Your task to perform on an android device: Show me popular games on the Play Store Image 0: 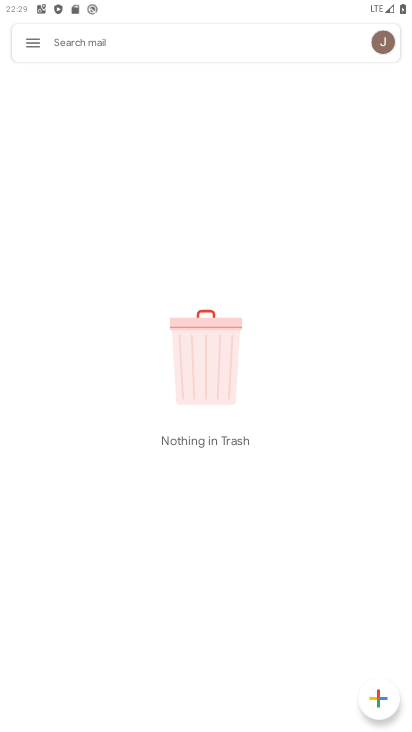
Step 0: press home button
Your task to perform on an android device: Show me popular games on the Play Store Image 1: 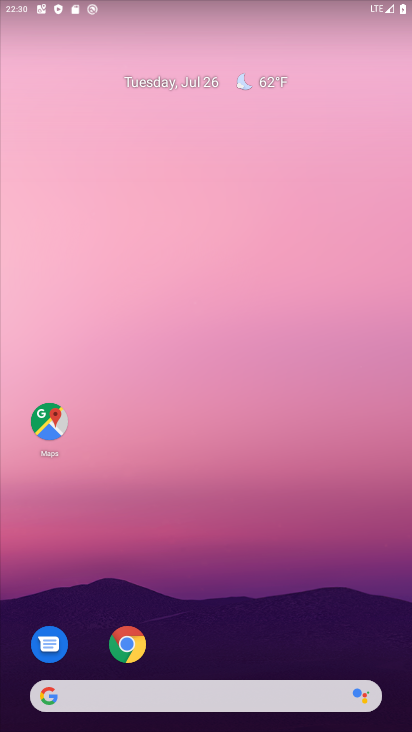
Step 1: drag from (267, 658) to (284, 108)
Your task to perform on an android device: Show me popular games on the Play Store Image 2: 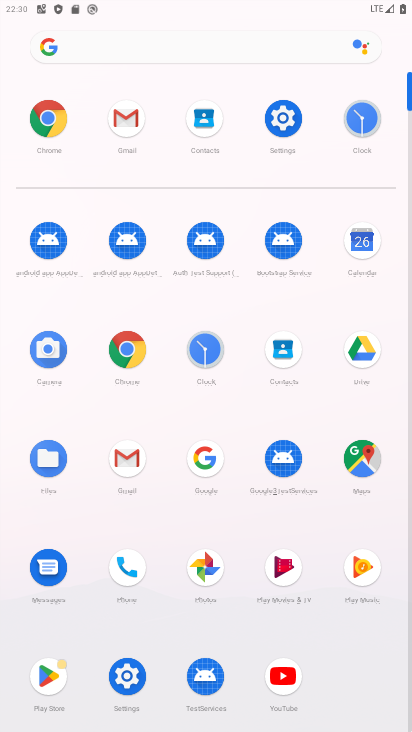
Step 2: click (46, 678)
Your task to perform on an android device: Show me popular games on the Play Store Image 3: 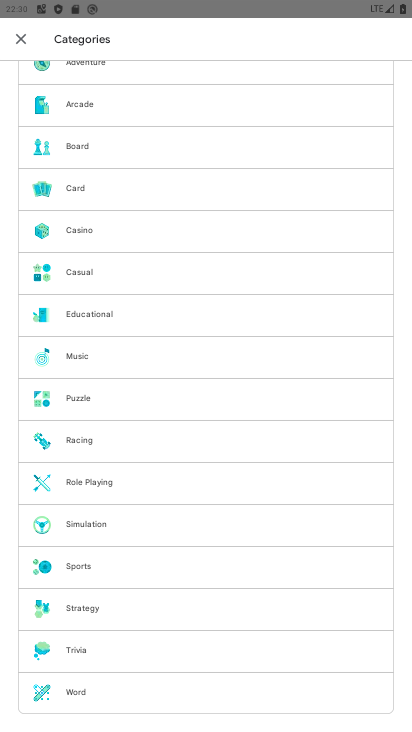
Step 3: click (26, 40)
Your task to perform on an android device: Show me popular games on the Play Store Image 4: 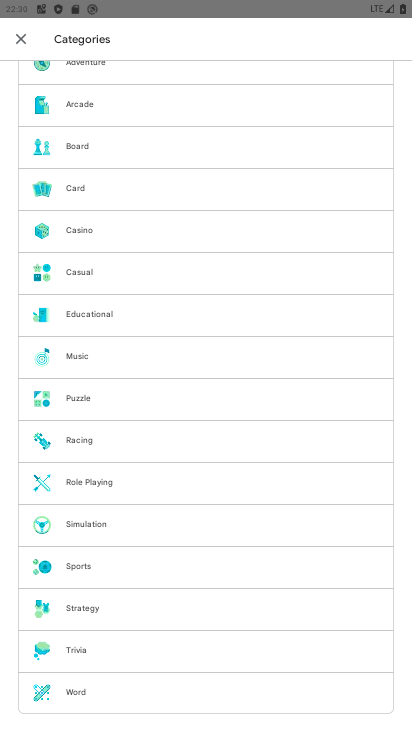
Step 4: click (23, 41)
Your task to perform on an android device: Show me popular games on the Play Store Image 5: 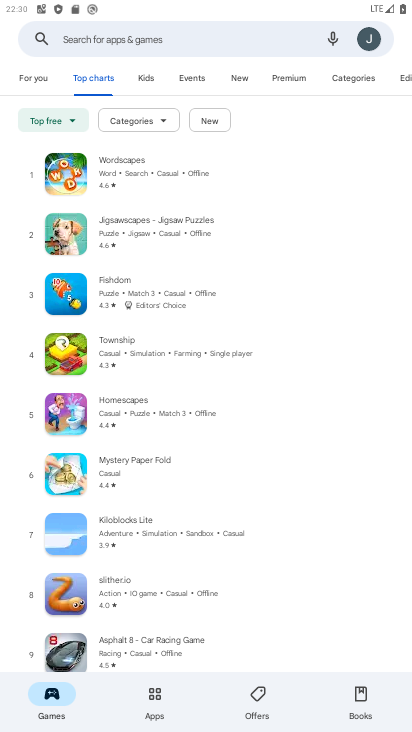
Step 5: press back button
Your task to perform on an android device: Show me popular games on the Play Store Image 6: 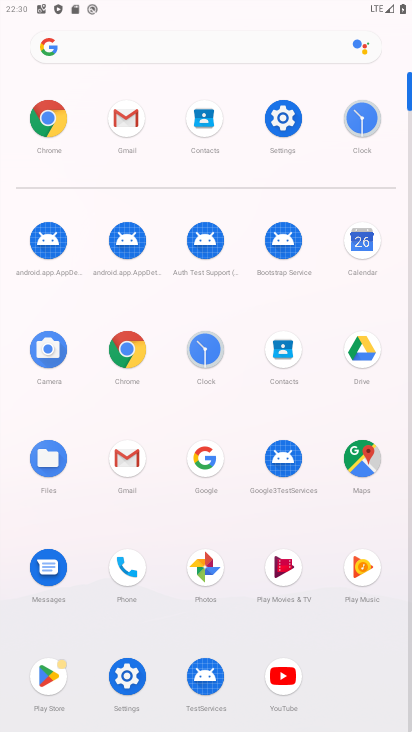
Step 6: click (58, 686)
Your task to perform on an android device: Show me popular games on the Play Store Image 7: 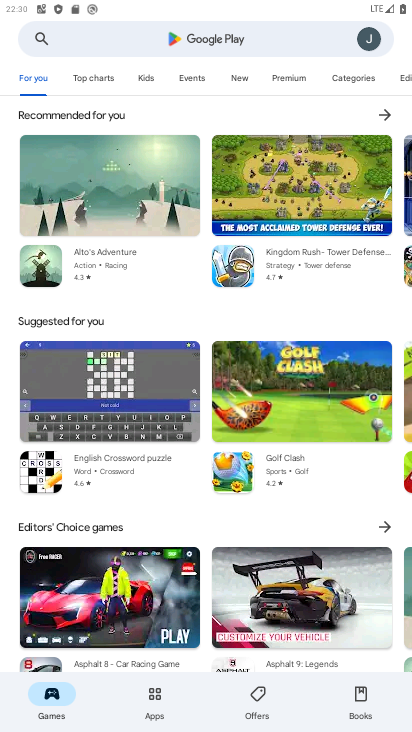
Step 7: click (62, 688)
Your task to perform on an android device: Show me popular games on the Play Store Image 8: 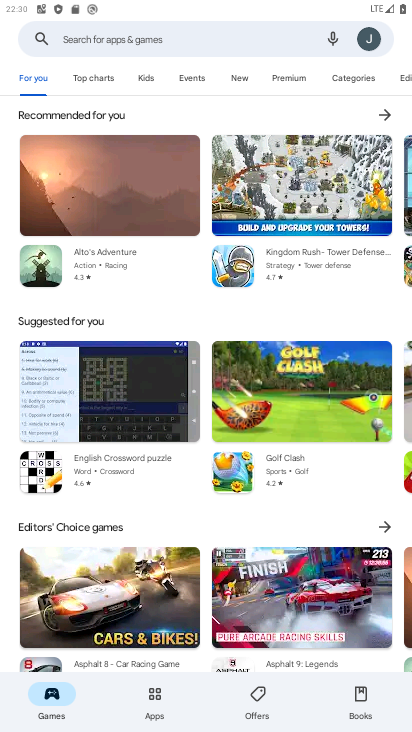
Step 8: drag from (240, 262) to (215, 550)
Your task to perform on an android device: Show me popular games on the Play Store Image 9: 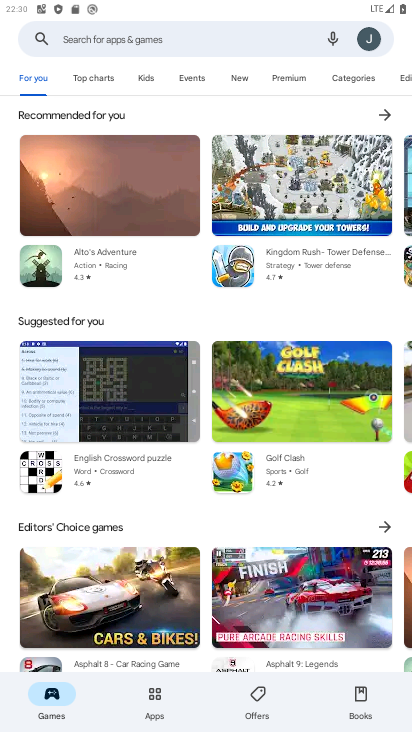
Step 9: drag from (215, 549) to (240, 310)
Your task to perform on an android device: Show me popular games on the Play Store Image 10: 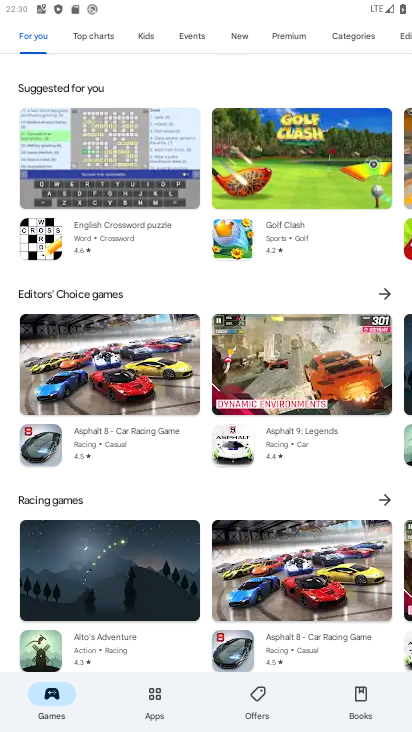
Step 10: drag from (191, 535) to (198, 286)
Your task to perform on an android device: Show me popular games on the Play Store Image 11: 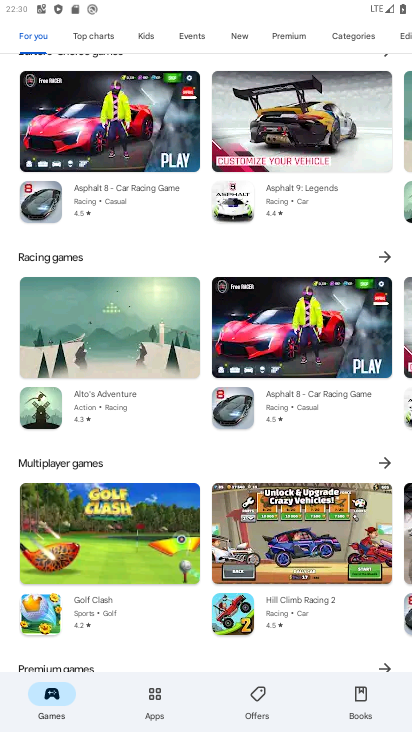
Step 11: drag from (172, 549) to (185, 263)
Your task to perform on an android device: Show me popular games on the Play Store Image 12: 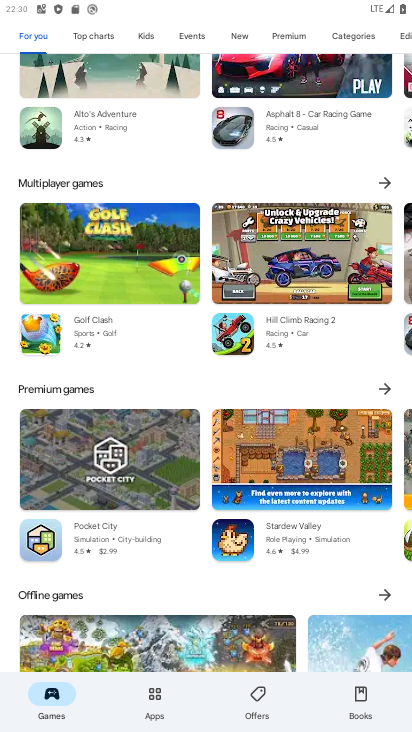
Step 12: drag from (169, 569) to (188, 277)
Your task to perform on an android device: Show me popular games on the Play Store Image 13: 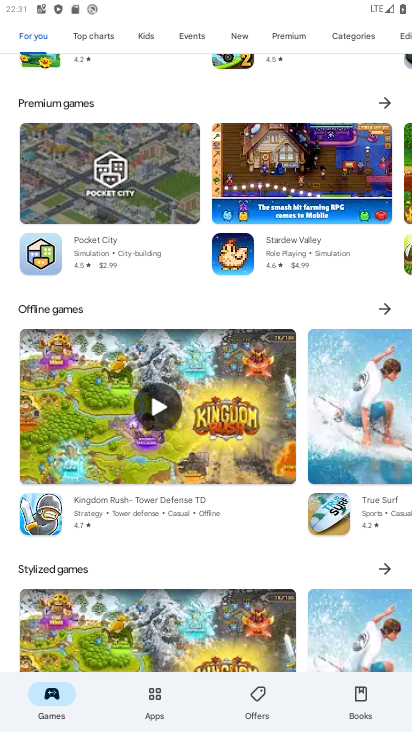
Step 13: drag from (171, 598) to (181, 240)
Your task to perform on an android device: Show me popular games on the Play Store Image 14: 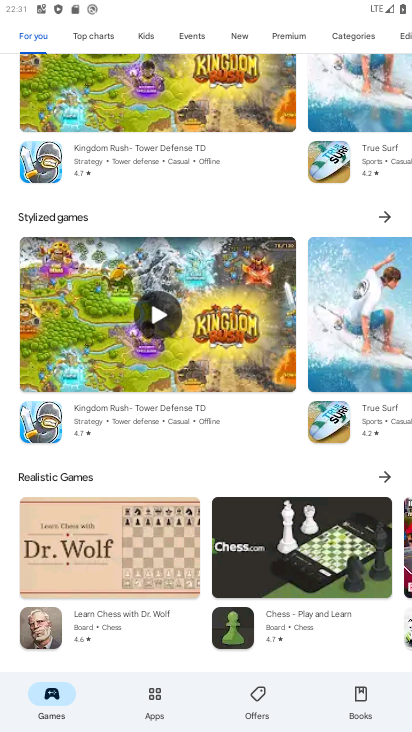
Step 14: drag from (206, 547) to (199, 277)
Your task to perform on an android device: Show me popular games on the Play Store Image 15: 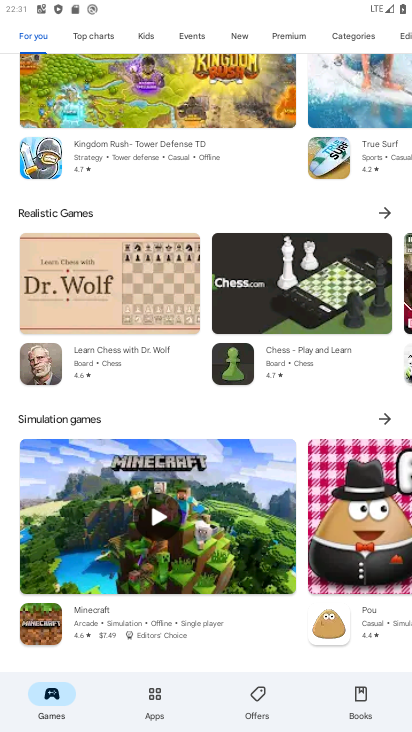
Step 15: drag from (142, 587) to (147, 259)
Your task to perform on an android device: Show me popular games on the Play Store Image 16: 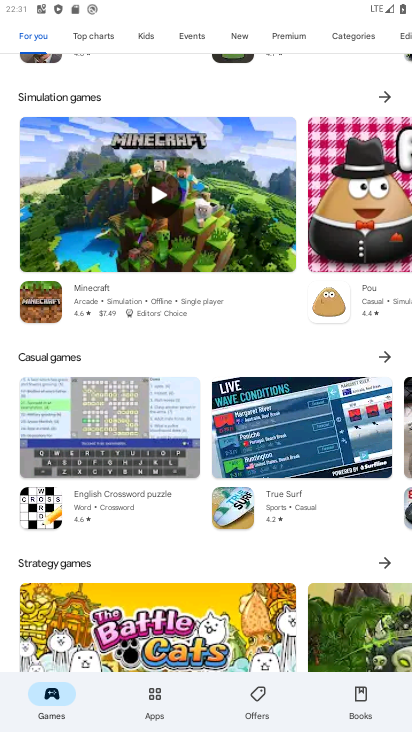
Step 16: drag from (167, 617) to (159, 340)
Your task to perform on an android device: Show me popular games on the Play Store Image 17: 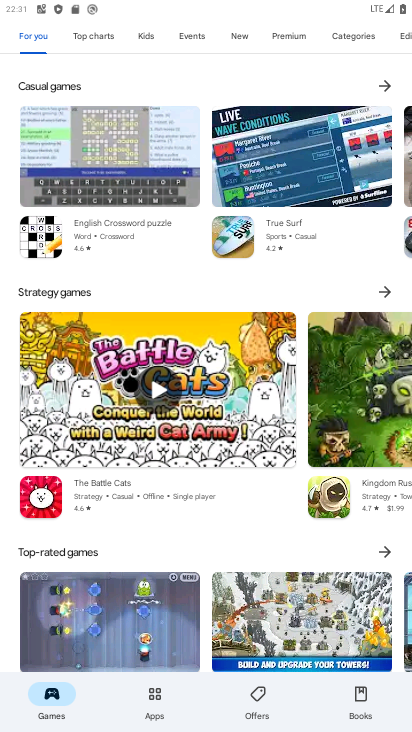
Step 17: drag from (179, 629) to (179, 286)
Your task to perform on an android device: Show me popular games on the Play Store Image 18: 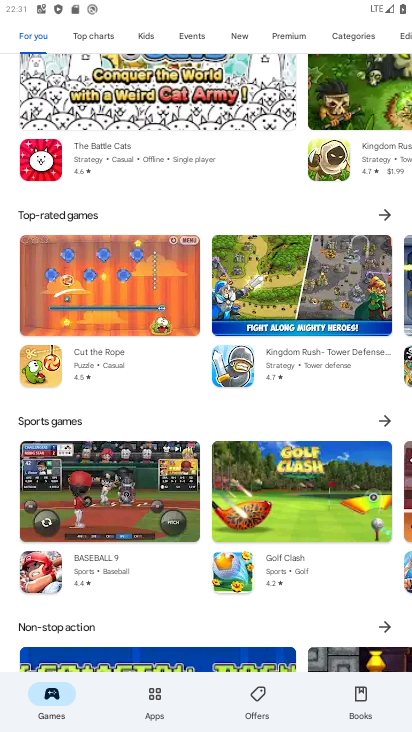
Step 18: drag from (212, 619) to (171, 269)
Your task to perform on an android device: Show me popular games on the Play Store Image 19: 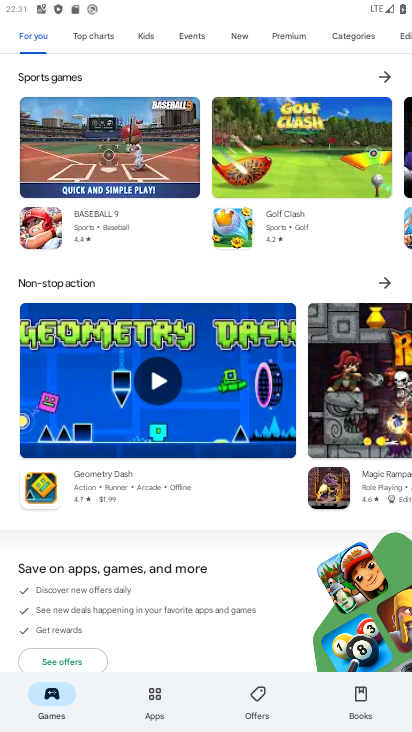
Step 19: drag from (188, 534) to (185, 253)
Your task to perform on an android device: Show me popular games on the Play Store Image 20: 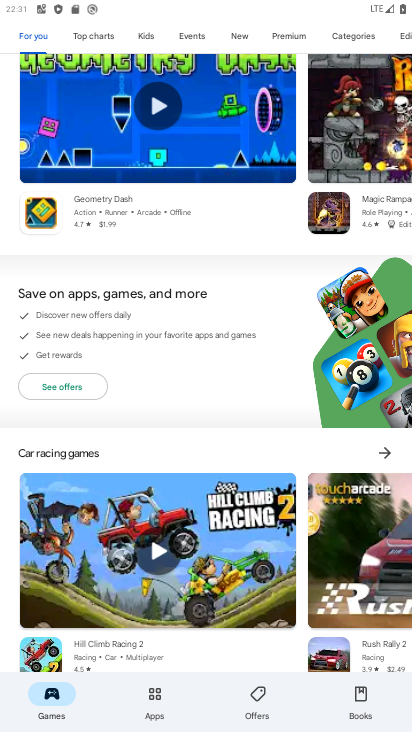
Step 20: drag from (184, 552) to (187, 251)
Your task to perform on an android device: Show me popular games on the Play Store Image 21: 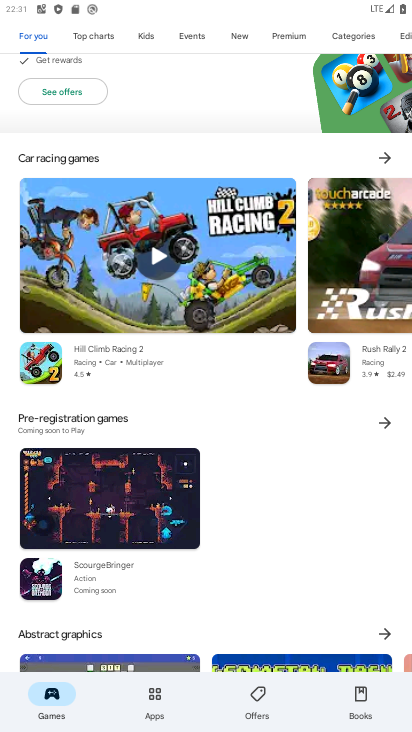
Step 21: drag from (174, 566) to (160, 198)
Your task to perform on an android device: Show me popular games on the Play Store Image 22: 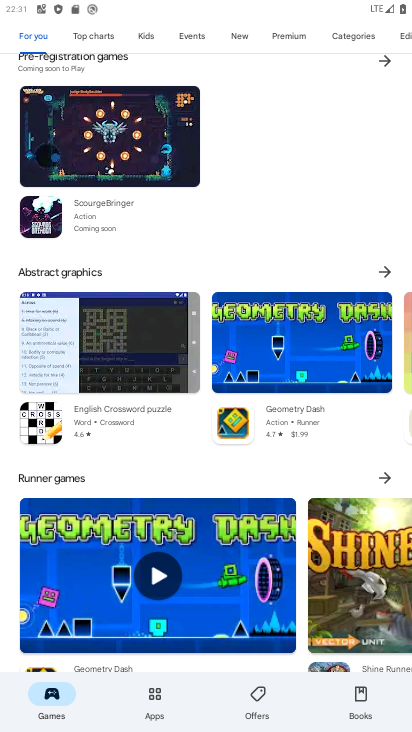
Step 22: drag from (189, 521) to (166, 242)
Your task to perform on an android device: Show me popular games on the Play Store Image 23: 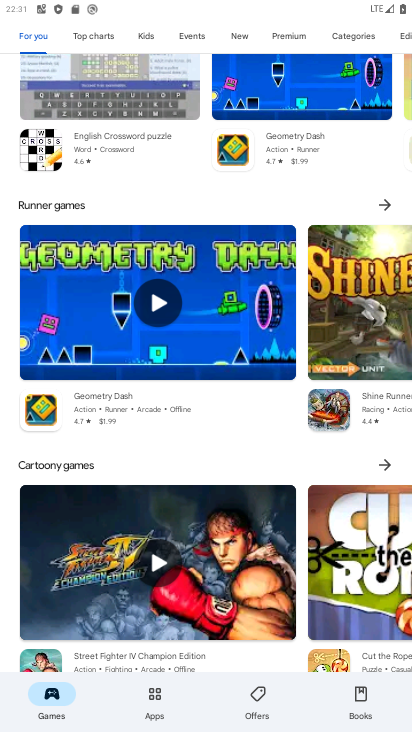
Step 23: drag from (161, 225) to (160, 598)
Your task to perform on an android device: Show me popular games on the Play Store Image 24: 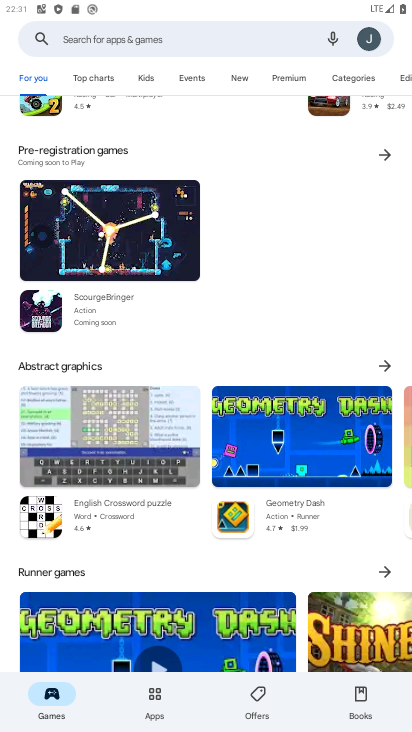
Step 24: drag from (154, 191) to (191, 608)
Your task to perform on an android device: Show me popular games on the Play Store Image 25: 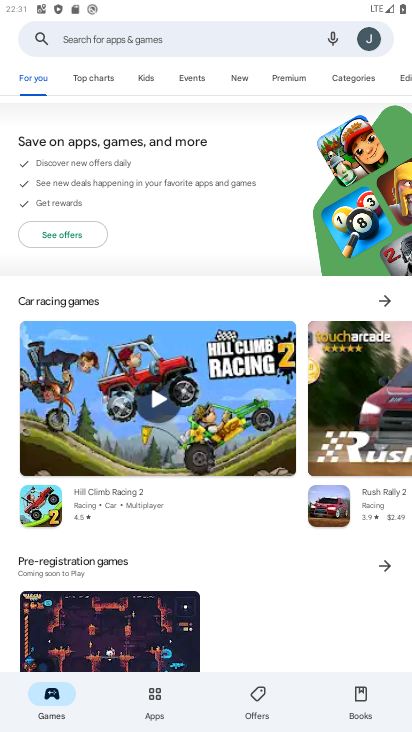
Step 25: drag from (197, 217) to (224, 566)
Your task to perform on an android device: Show me popular games on the Play Store Image 26: 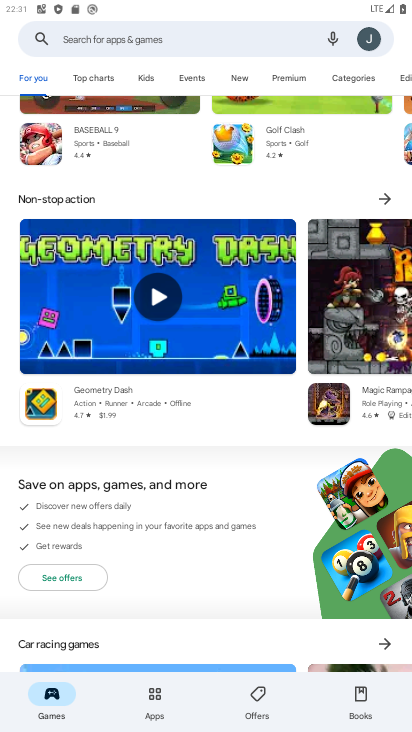
Step 26: drag from (173, 282) to (190, 646)
Your task to perform on an android device: Show me popular games on the Play Store Image 27: 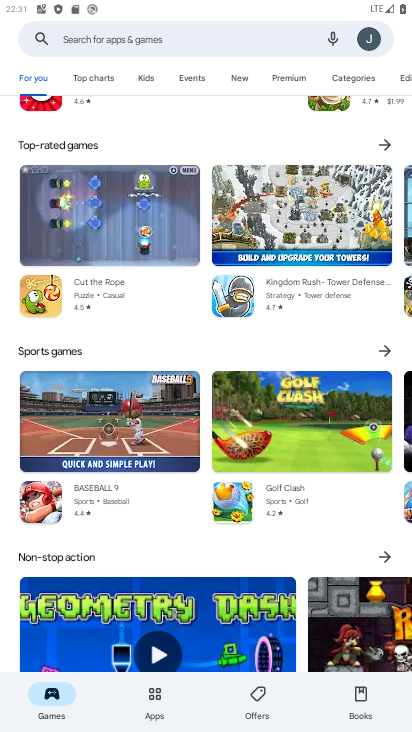
Step 27: drag from (179, 378) to (178, 651)
Your task to perform on an android device: Show me popular games on the Play Store Image 28: 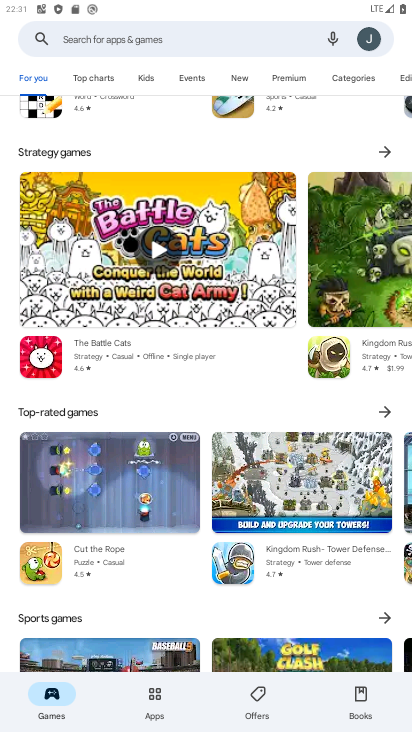
Step 28: drag from (147, 265) to (145, 639)
Your task to perform on an android device: Show me popular games on the Play Store Image 29: 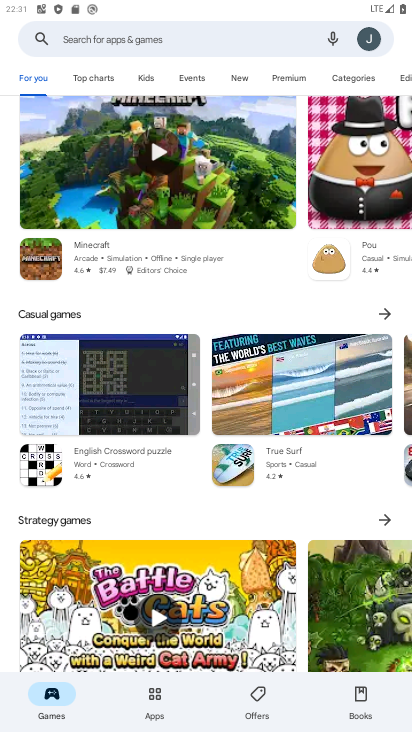
Step 29: drag from (157, 230) to (164, 610)
Your task to perform on an android device: Show me popular games on the Play Store Image 30: 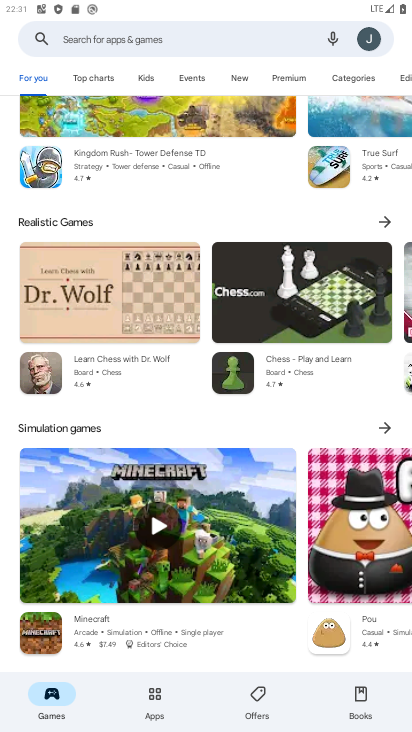
Step 30: drag from (158, 272) to (152, 644)
Your task to perform on an android device: Show me popular games on the Play Store Image 31: 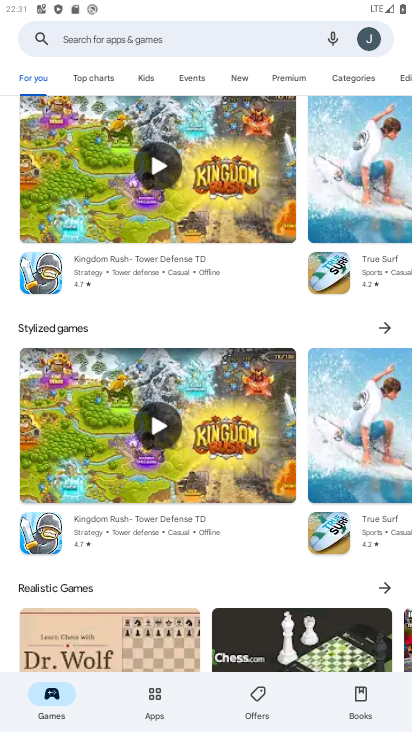
Step 31: drag from (149, 294) to (142, 637)
Your task to perform on an android device: Show me popular games on the Play Store Image 32: 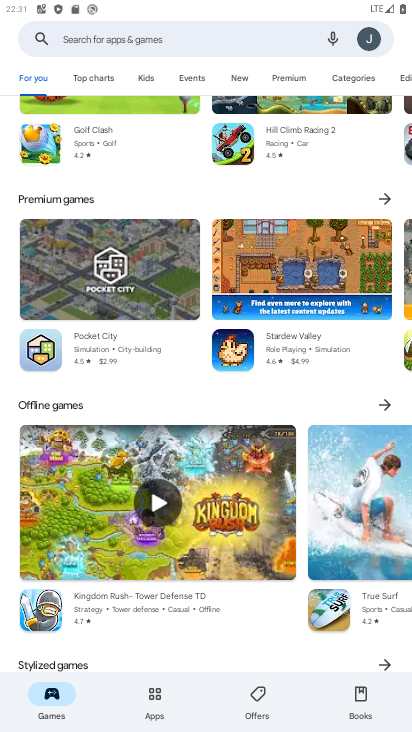
Step 32: drag from (147, 275) to (141, 646)
Your task to perform on an android device: Show me popular games on the Play Store Image 33: 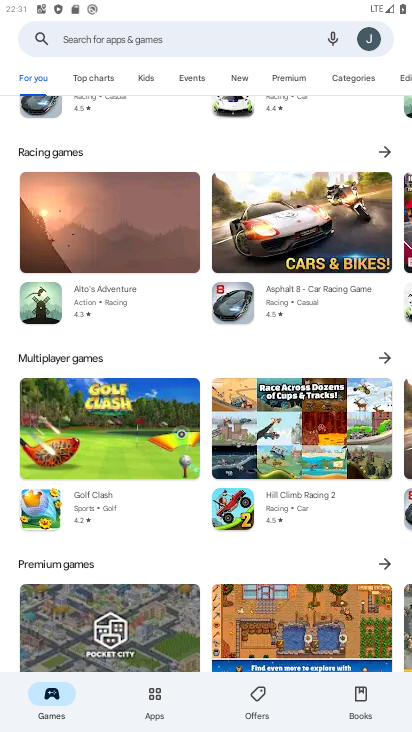
Step 33: drag from (122, 244) to (133, 621)
Your task to perform on an android device: Show me popular games on the Play Store Image 34: 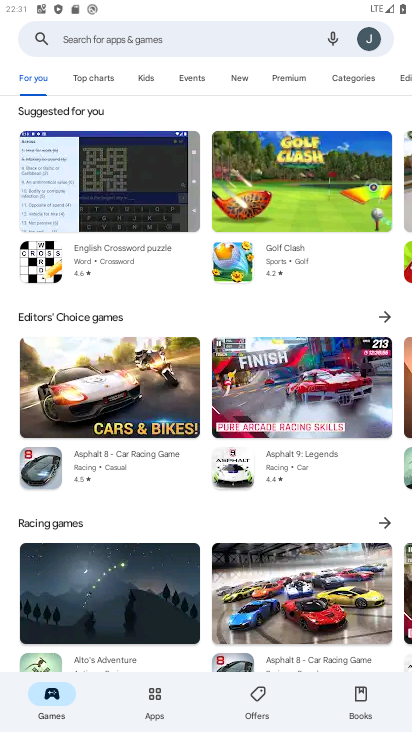
Step 34: drag from (125, 249) to (130, 630)
Your task to perform on an android device: Show me popular games on the Play Store Image 35: 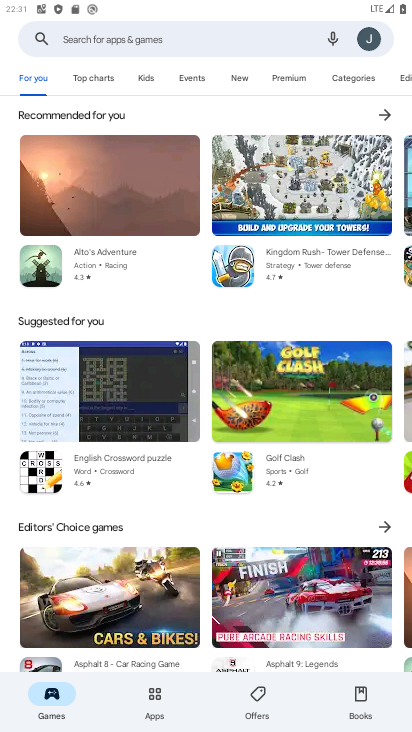
Step 35: click (102, 44)
Your task to perform on an android device: Show me popular games on the Play Store Image 36: 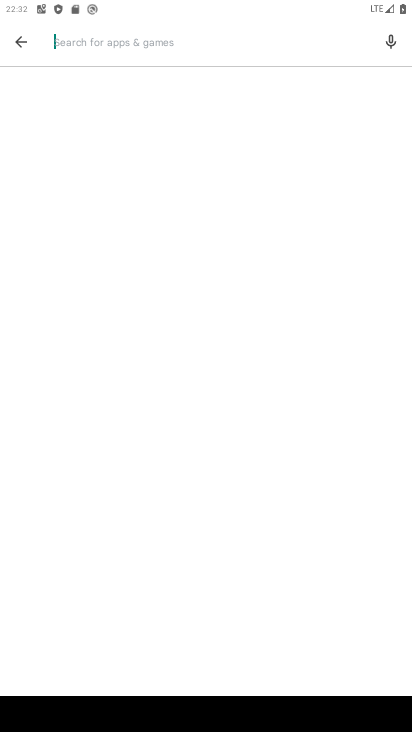
Step 36: type "popular games"
Your task to perform on an android device: Show me popular games on the Play Store Image 37: 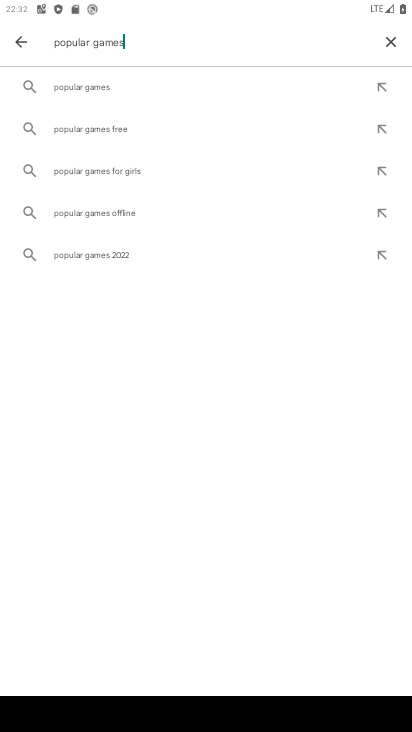
Step 37: click (94, 89)
Your task to perform on an android device: Show me popular games on the Play Store Image 38: 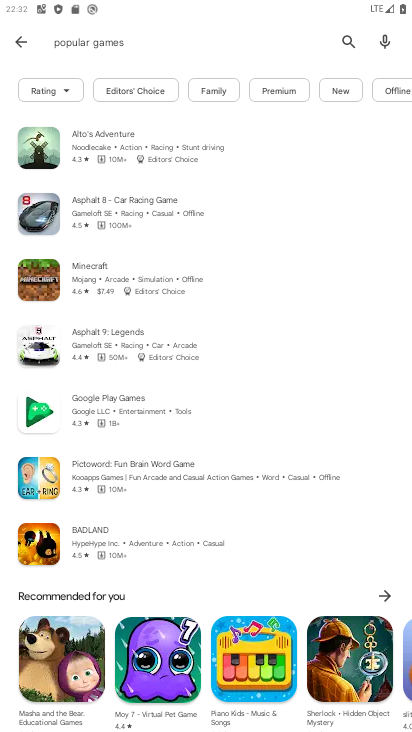
Step 38: task complete